Your task to perform on an android device: turn on bluetooth scan Image 0: 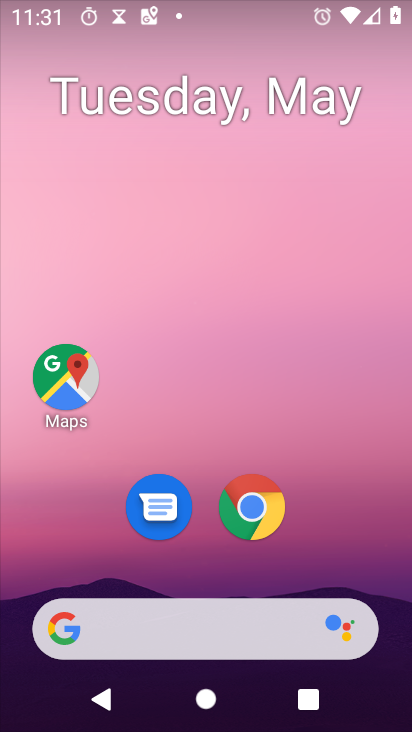
Step 0: drag from (27, 649) to (35, 173)
Your task to perform on an android device: turn on bluetooth scan Image 1: 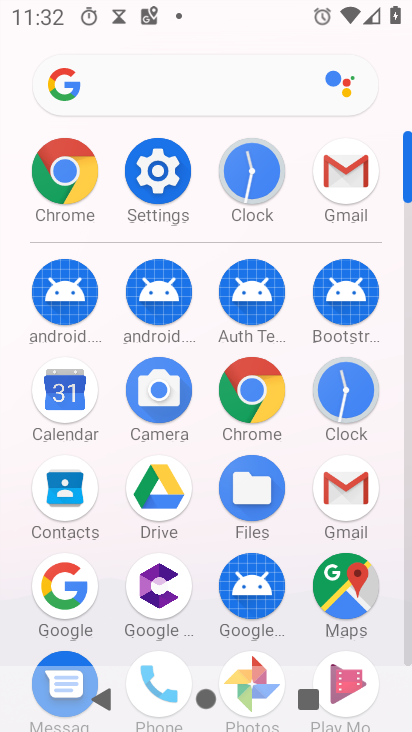
Step 1: click (149, 178)
Your task to perform on an android device: turn on bluetooth scan Image 2: 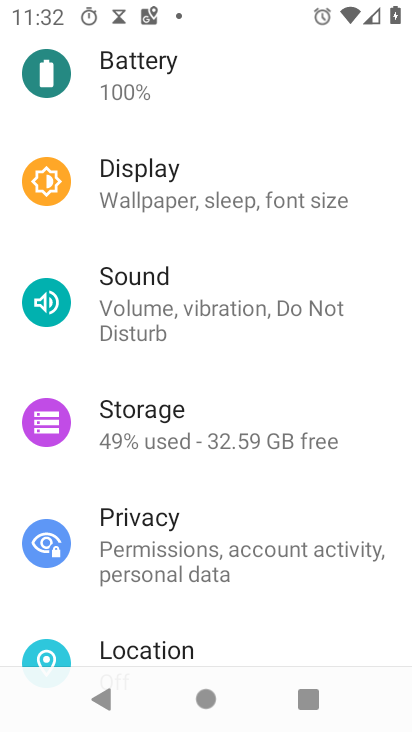
Step 2: drag from (5, 518) to (131, 148)
Your task to perform on an android device: turn on bluetooth scan Image 3: 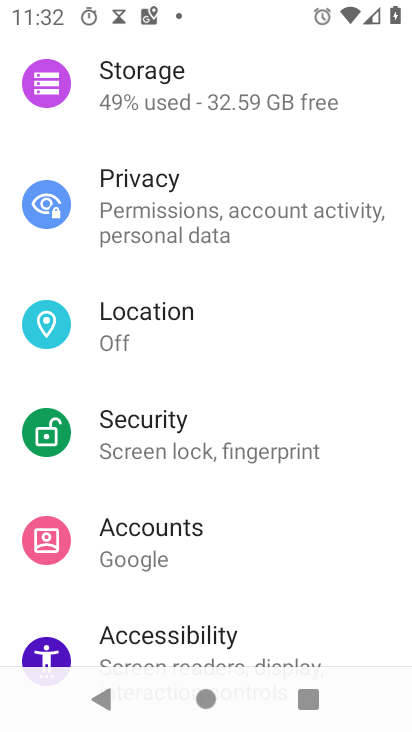
Step 3: click (181, 331)
Your task to perform on an android device: turn on bluetooth scan Image 4: 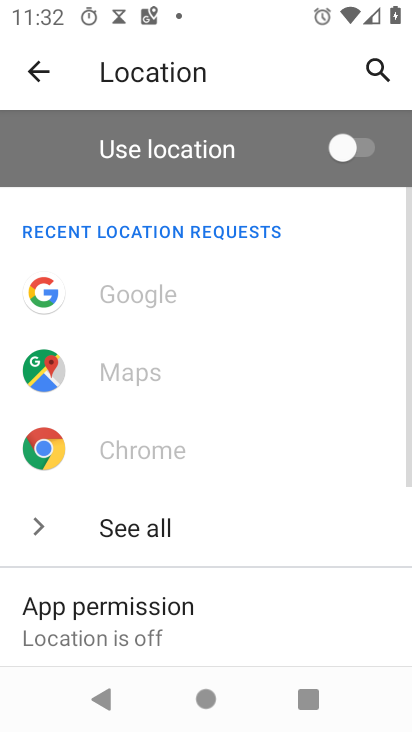
Step 4: drag from (64, 527) to (158, 172)
Your task to perform on an android device: turn on bluetooth scan Image 5: 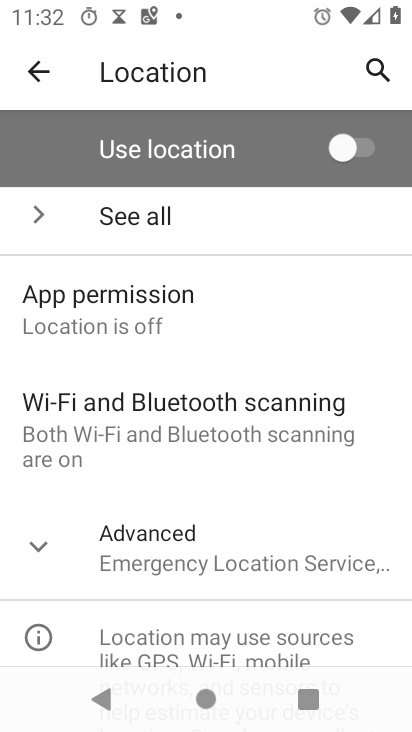
Step 5: click (160, 424)
Your task to perform on an android device: turn on bluetooth scan Image 6: 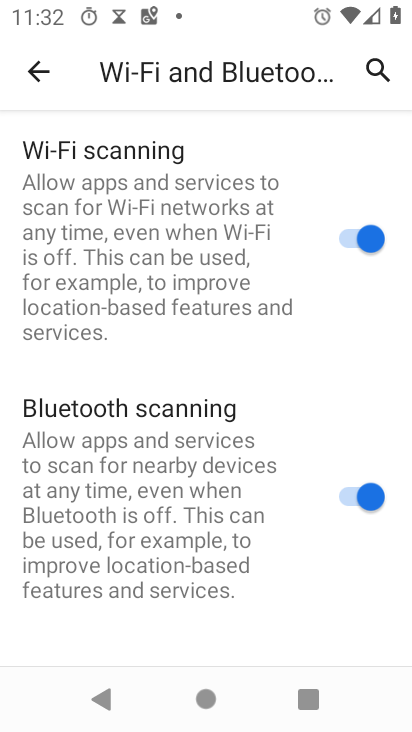
Step 6: task complete